Your task to perform on an android device: set the timer Image 0: 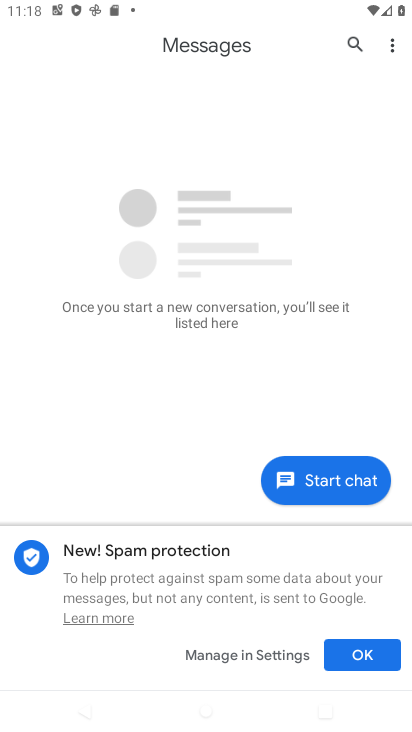
Step 0: press home button
Your task to perform on an android device: set the timer Image 1: 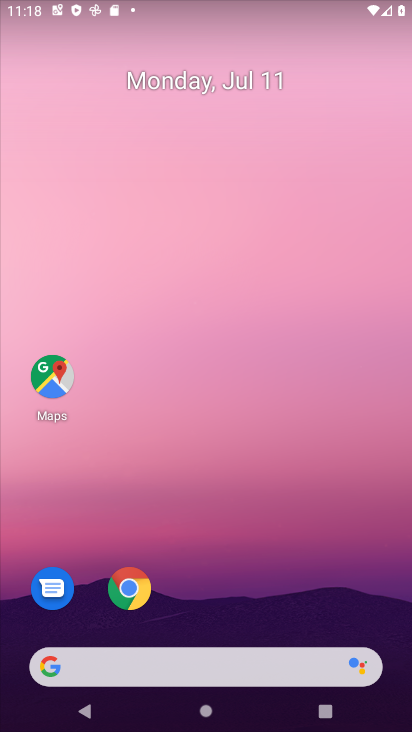
Step 1: drag from (260, 708) to (274, 36)
Your task to perform on an android device: set the timer Image 2: 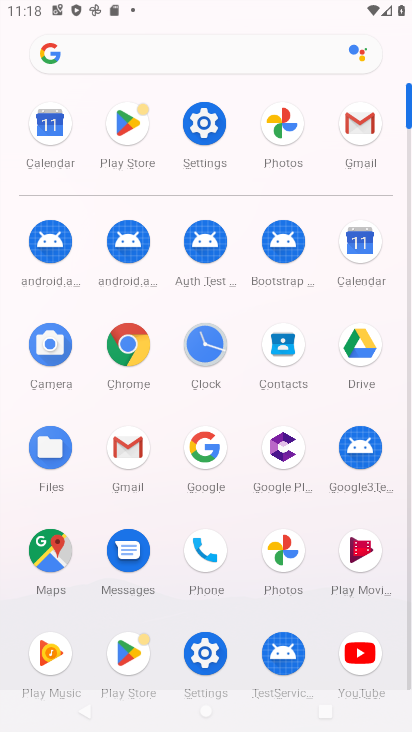
Step 2: click (205, 356)
Your task to perform on an android device: set the timer Image 3: 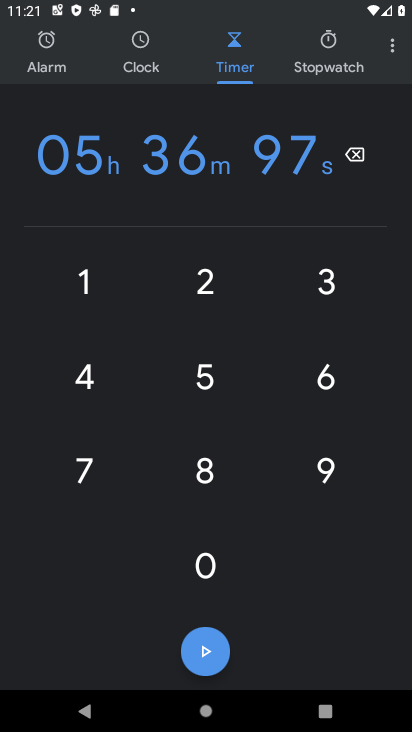
Step 3: click (316, 280)
Your task to perform on an android device: set the timer Image 4: 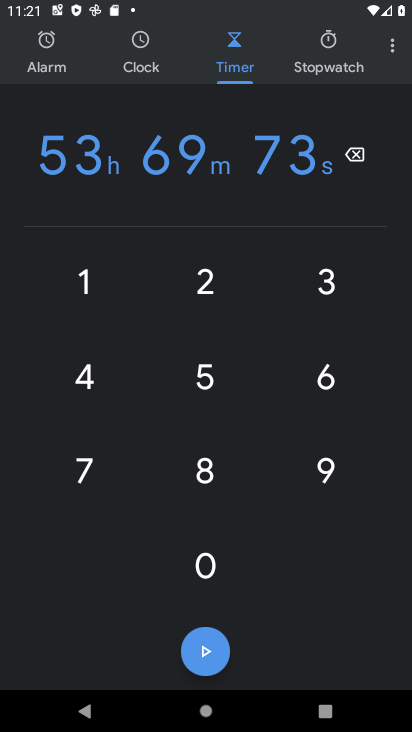
Step 4: task complete